Your task to perform on an android device: Open Google Image 0: 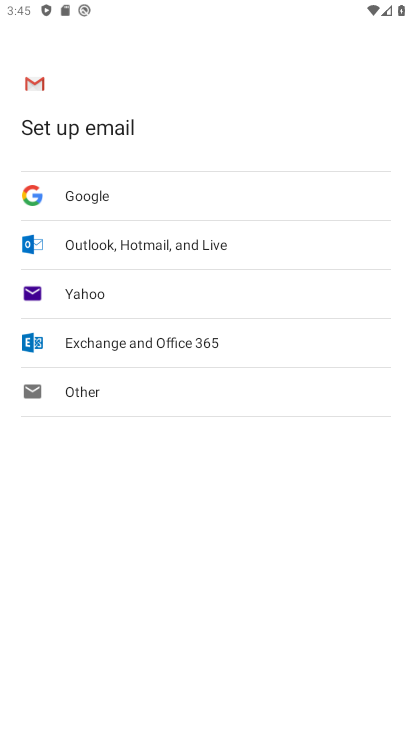
Step 0: press home button
Your task to perform on an android device: Open Google Image 1: 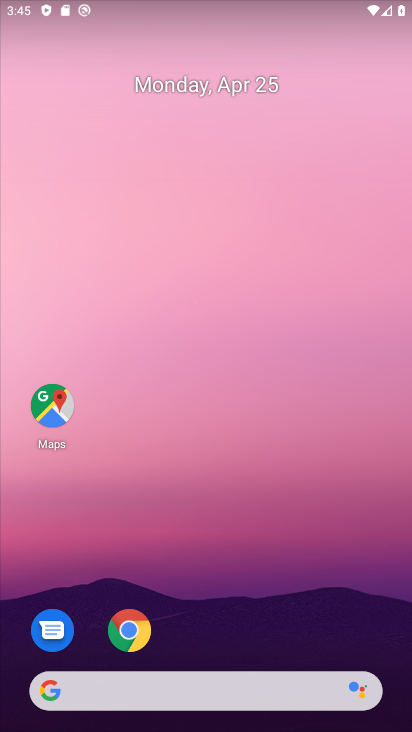
Step 1: drag from (305, 417) to (365, 39)
Your task to perform on an android device: Open Google Image 2: 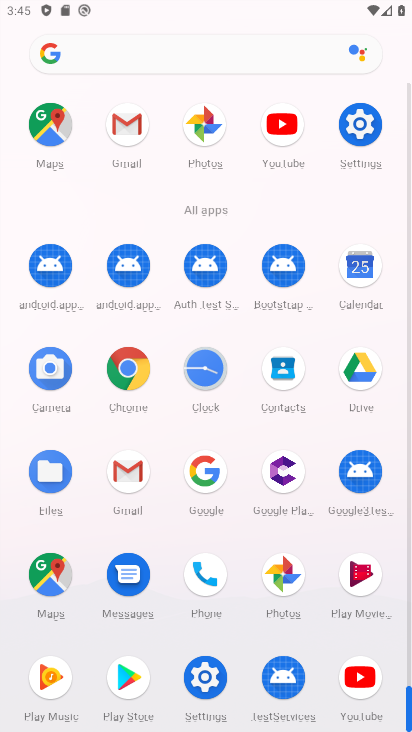
Step 2: click (209, 467)
Your task to perform on an android device: Open Google Image 3: 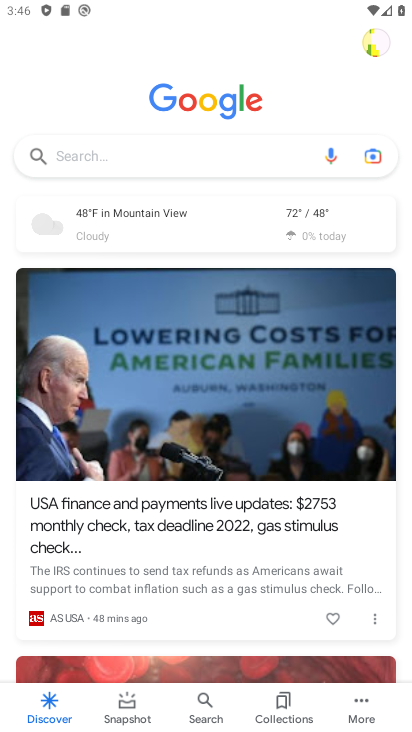
Step 3: task complete